Your task to perform on an android device: Open my contact list Image 0: 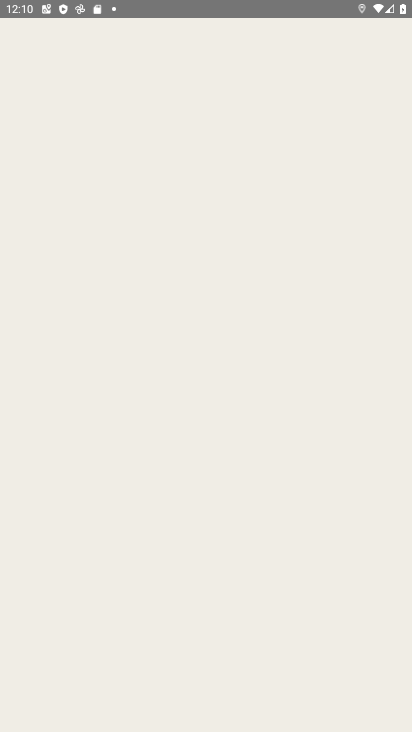
Step 0: press home button
Your task to perform on an android device: Open my contact list Image 1: 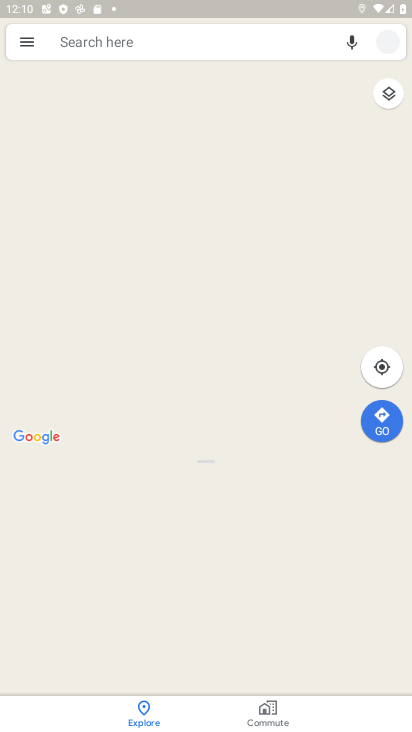
Step 1: drag from (369, 588) to (256, 0)
Your task to perform on an android device: Open my contact list Image 2: 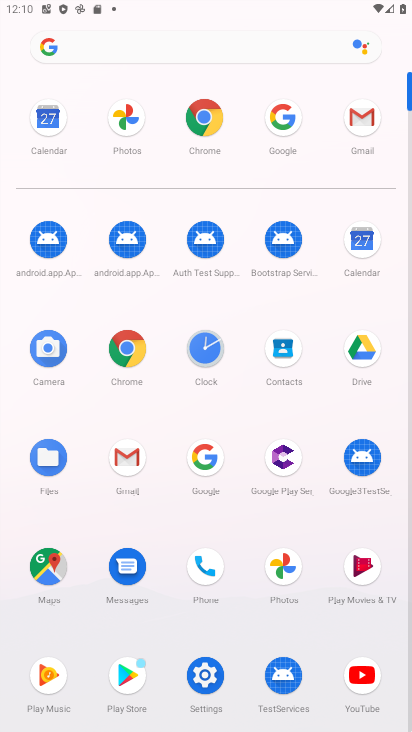
Step 2: click (286, 343)
Your task to perform on an android device: Open my contact list Image 3: 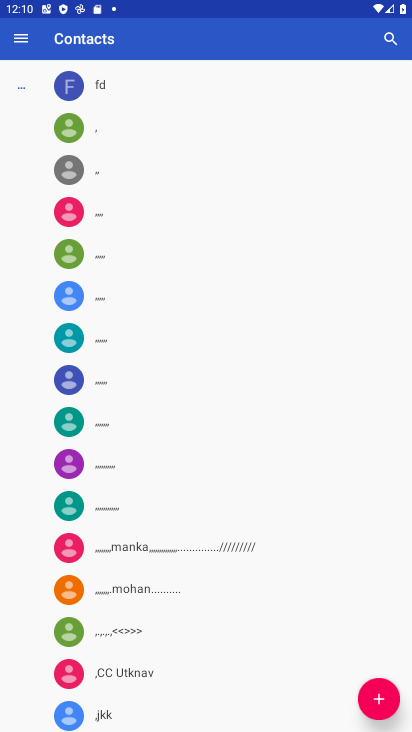
Step 3: task complete